Your task to perform on an android device: turn on sleep mode Image 0: 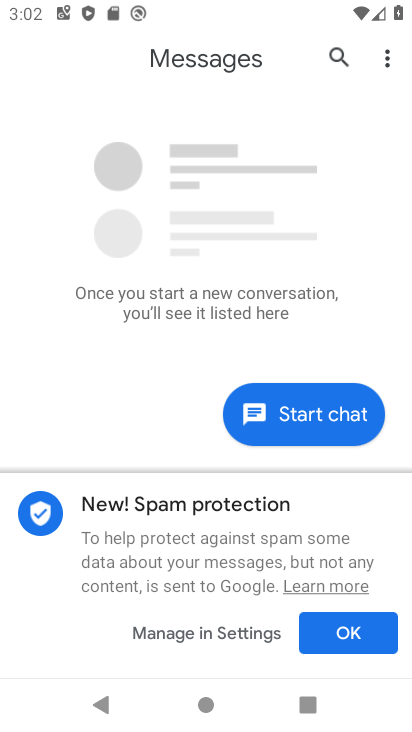
Step 0: press home button
Your task to perform on an android device: turn on sleep mode Image 1: 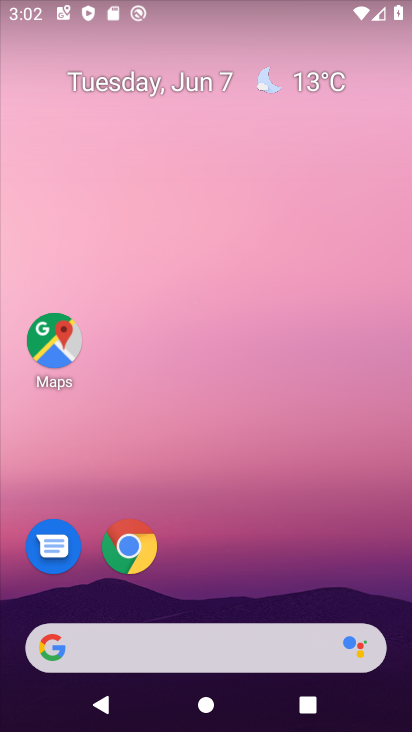
Step 1: drag from (34, 574) to (257, 166)
Your task to perform on an android device: turn on sleep mode Image 2: 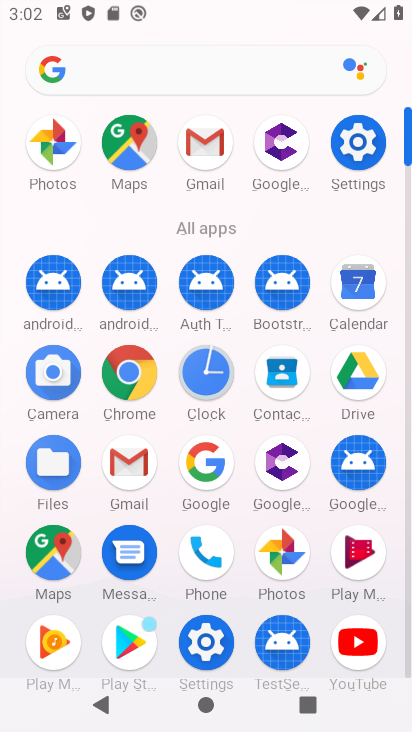
Step 2: click (329, 143)
Your task to perform on an android device: turn on sleep mode Image 3: 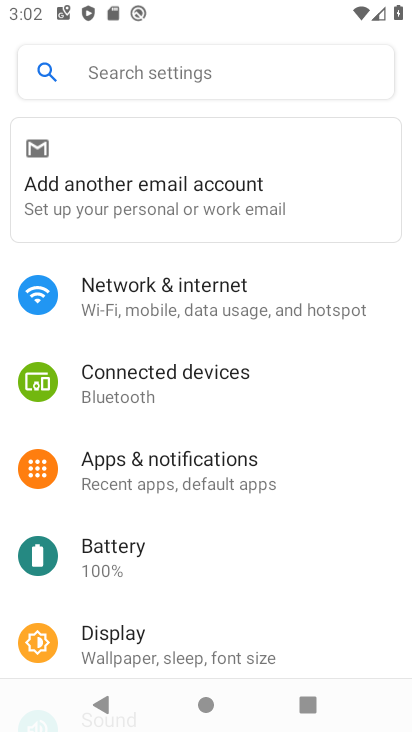
Step 3: click (176, 650)
Your task to perform on an android device: turn on sleep mode Image 4: 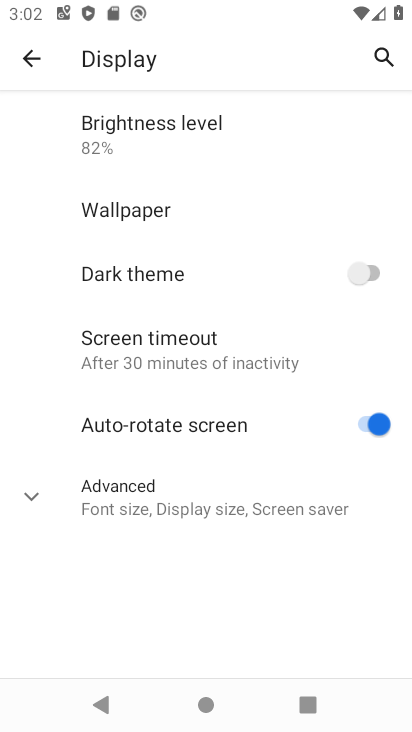
Step 4: task complete